Your task to perform on an android device: Open Google Maps and go to "Timeline" Image 0: 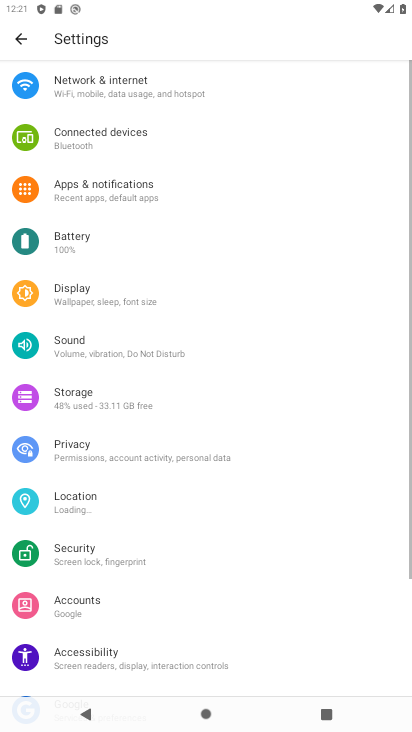
Step 0: press home button
Your task to perform on an android device: Open Google Maps and go to "Timeline" Image 1: 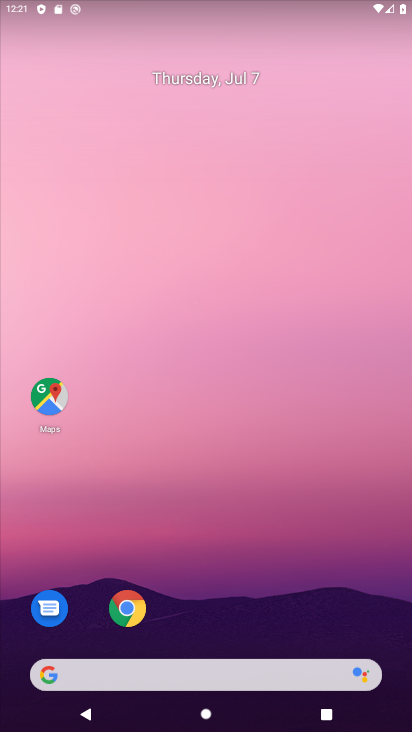
Step 1: drag from (187, 656) to (285, 14)
Your task to perform on an android device: Open Google Maps and go to "Timeline" Image 2: 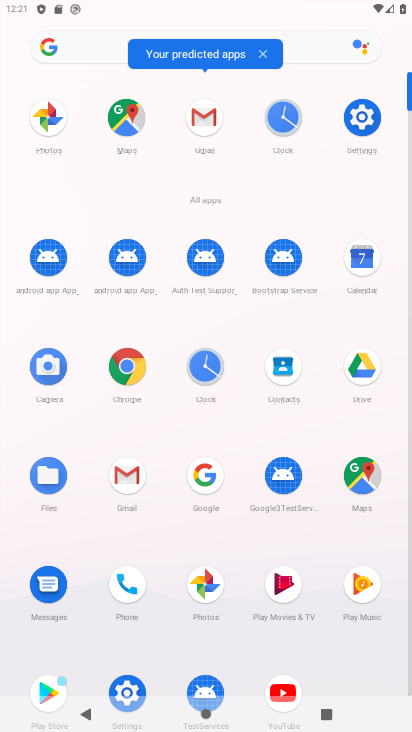
Step 2: click (357, 468)
Your task to perform on an android device: Open Google Maps and go to "Timeline" Image 3: 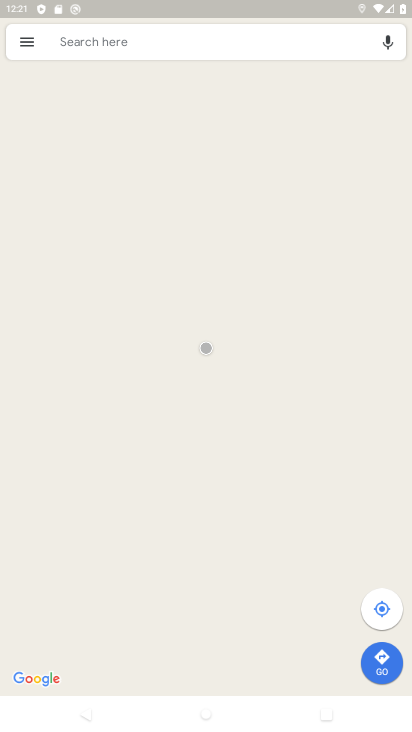
Step 3: click (39, 42)
Your task to perform on an android device: Open Google Maps and go to "Timeline" Image 4: 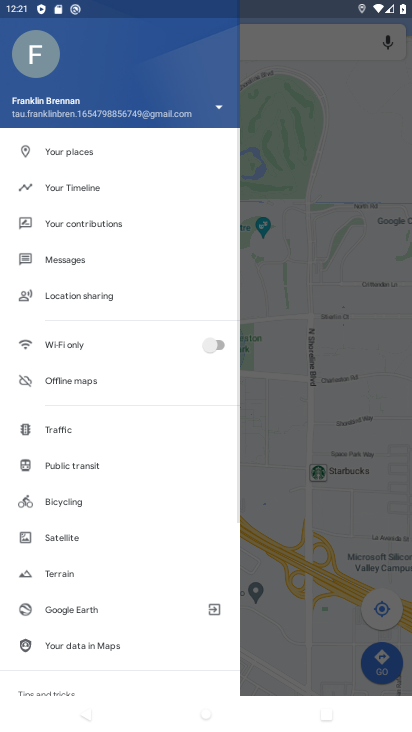
Step 4: click (96, 182)
Your task to perform on an android device: Open Google Maps and go to "Timeline" Image 5: 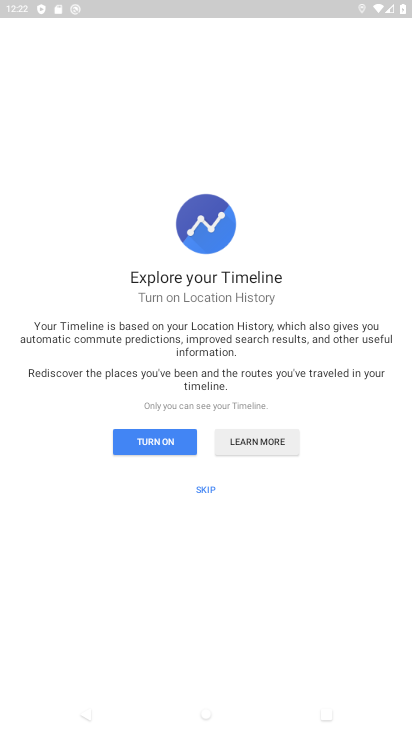
Step 5: click (201, 487)
Your task to perform on an android device: Open Google Maps and go to "Timeline" Image 6: 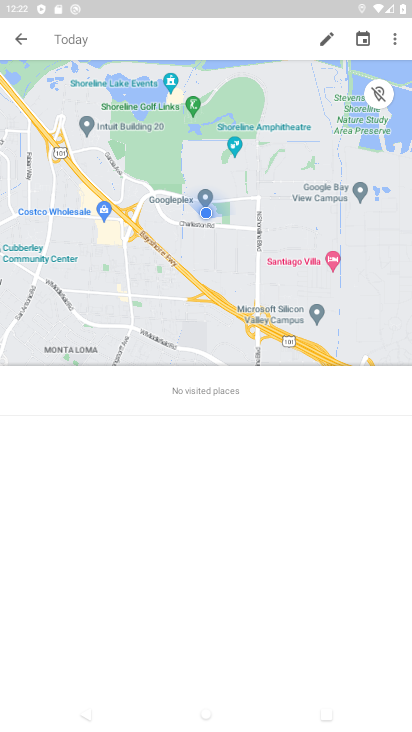
Step 6: task complete